Your task to perform on an android device: change text size in settings app Image 0: 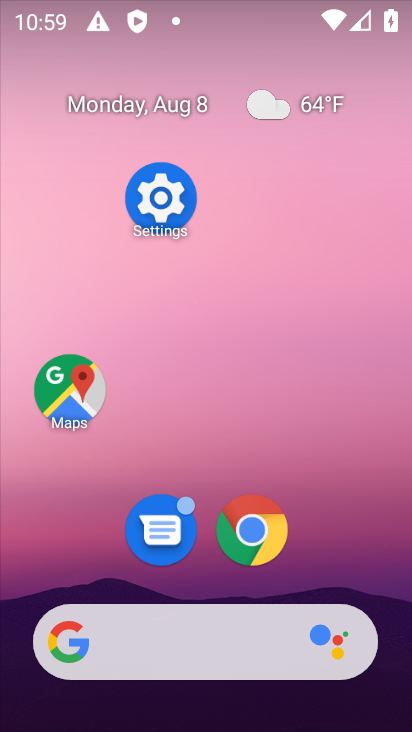
Step 0: drag from (179, 495) to (155, 341)
Your task to perform on an android device: change text size in settings app Image 1: 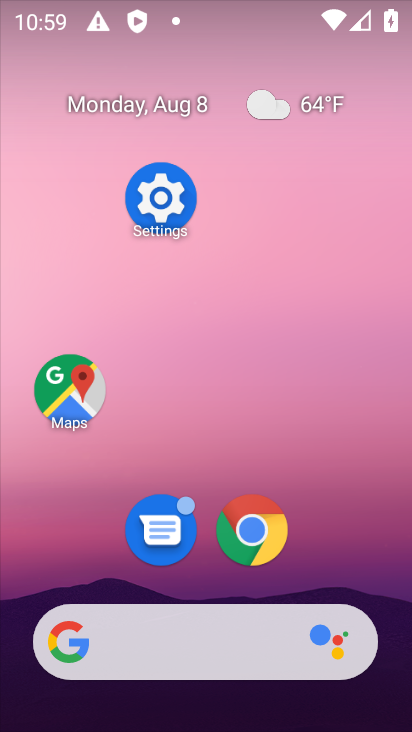
Step 1: drag from (239, 510) to (194, 261)
Your task to perform on an android device: change text size in settings app Image 2: 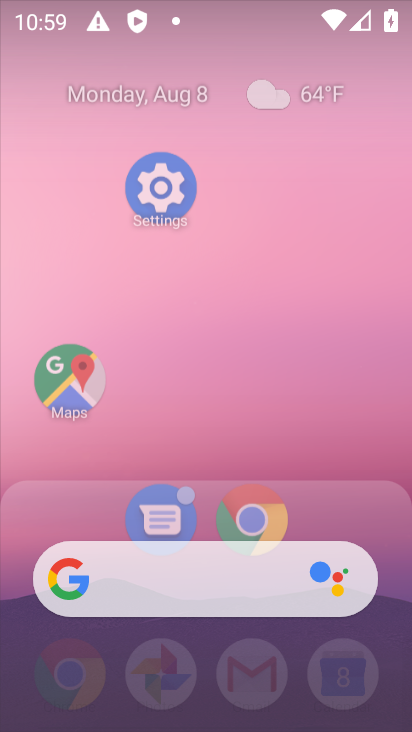
Step 2: drag from (230, 533) to (179, 144)
Your task to perform on an android device: change text size in settings app Image 3: 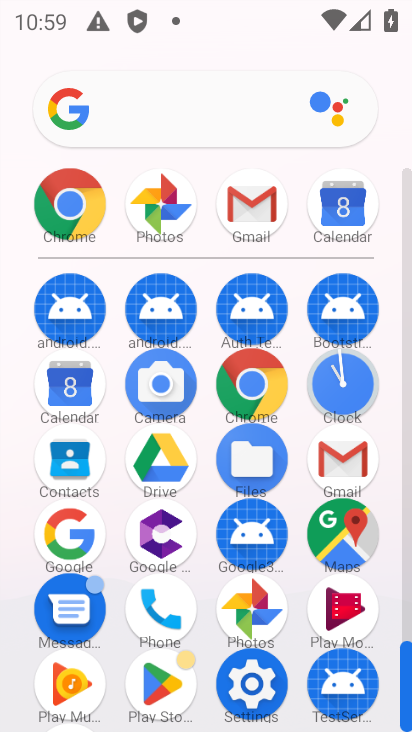
Step 3: click (258, 692)
Your task to perform on an android device: change text size in settings app Image 4: 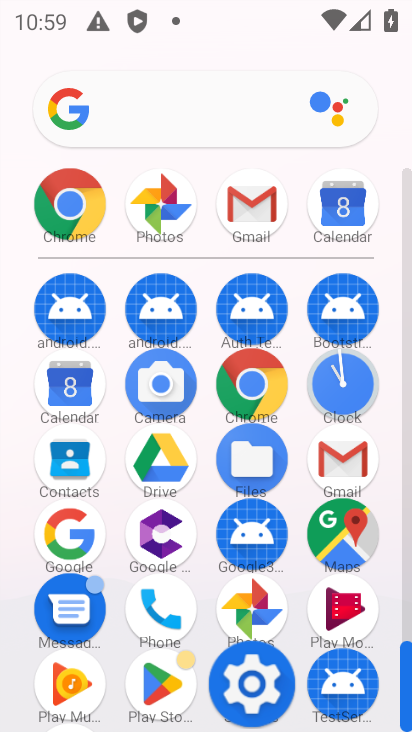
Step 4: click (258, 692)
Your task to perform on an android device: change text size in settings app Image 5: 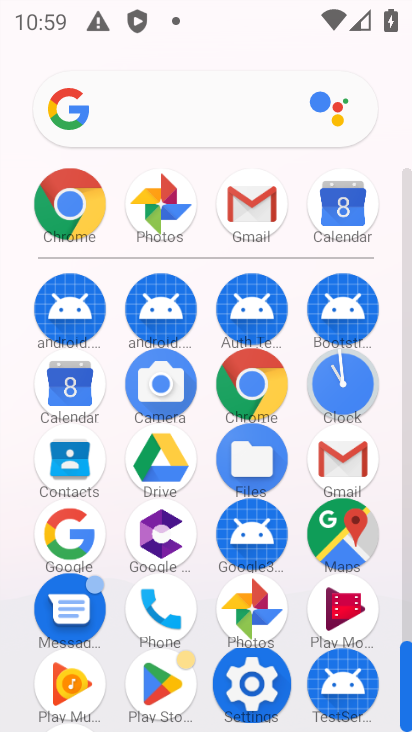
Step 5: click (260, 692)
Your task to perform on an android device: change text size in settings app Image 6: 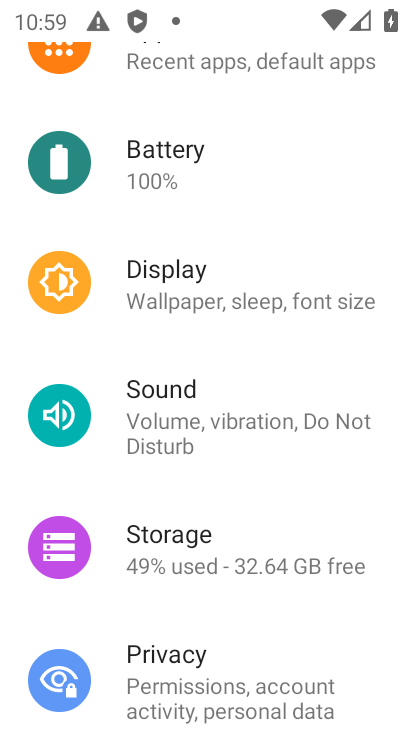
Step 6: drag from (179, 260) to (179, 503)
Your task to perform on an android device: change text size in settings app Image 7: 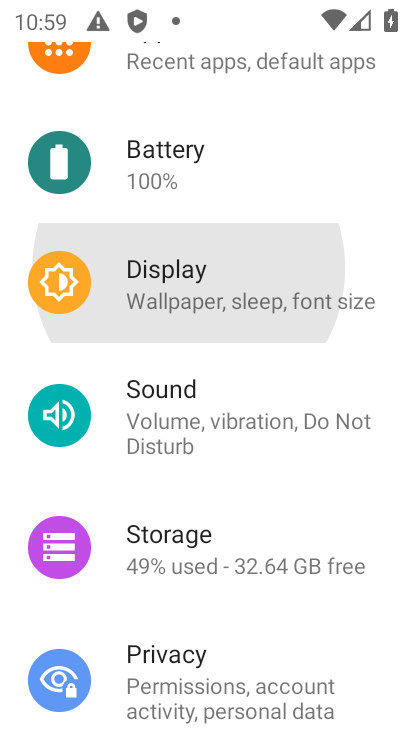
Step 7: drag from (130, 232) to (189, 516)
Your task to perform on an android device: change text size in settings app Image 8: 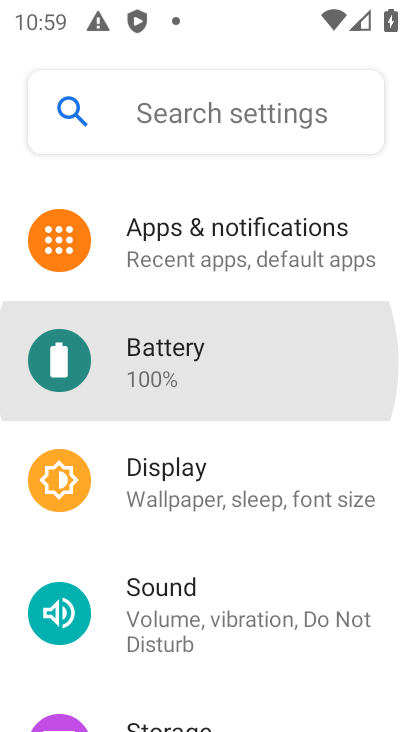
Step 8: drag from (199, 272) to (221, 524)
Your task to perform on an android device: change text size in settings app Image 9: 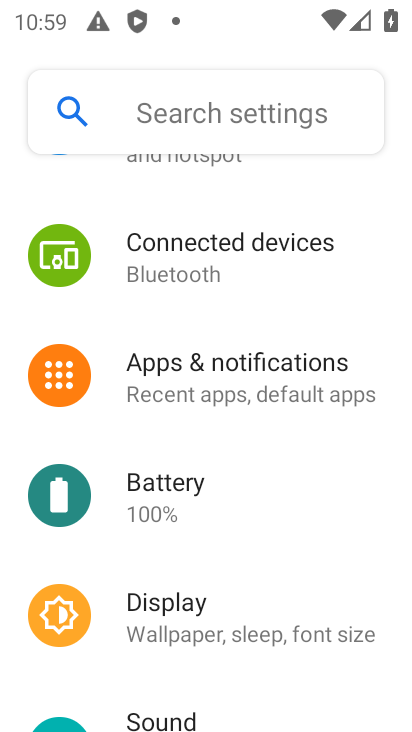
Step 9: drag from (197, 504) to (170, 325)
Your task to perform on an android device: change text size in settings app Image 10: 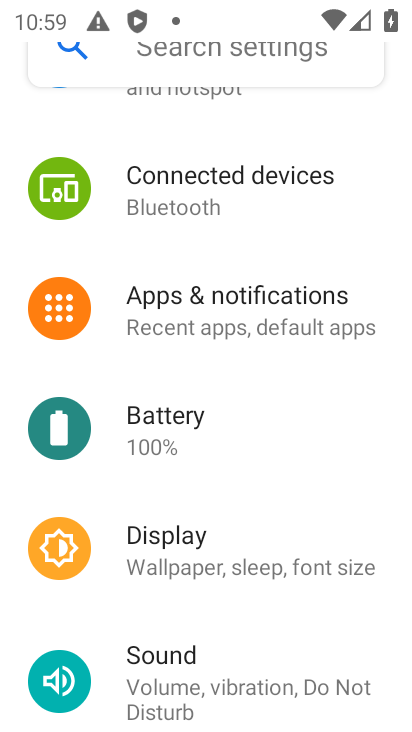
Step 10: drag from (219, 413) to (179, 259)
Your task to perform on an android device: change text size in settings app Image 11: 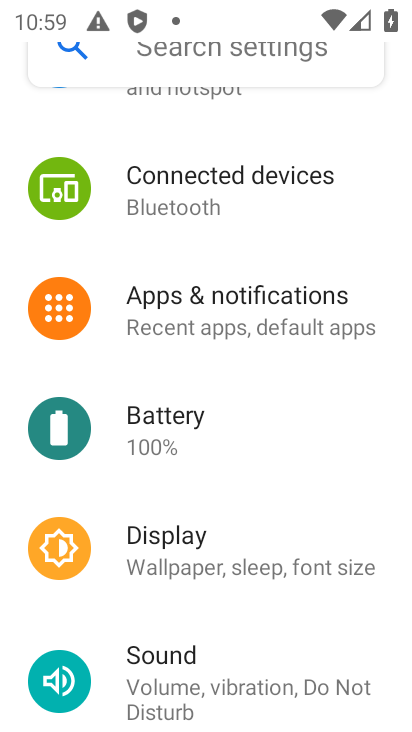
Step 11: drag from (219, 492) to (183, 189)
Your task to perform on an android device: change text size in settings app Image 12: 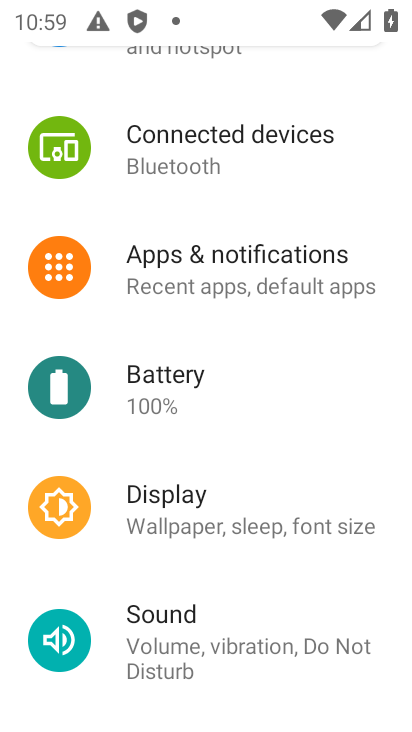
Step 12: drag from (214, 509) to (190, 201)
Your task to perform on an android device: change text size in settings app Image 13: 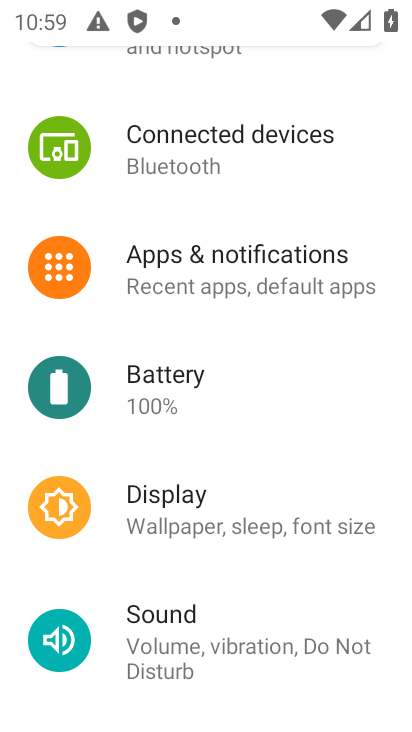
Step 13: drag from (202, 597) to (159, 235)
Your task to perform on an android device: change text size in settings app Image 14: 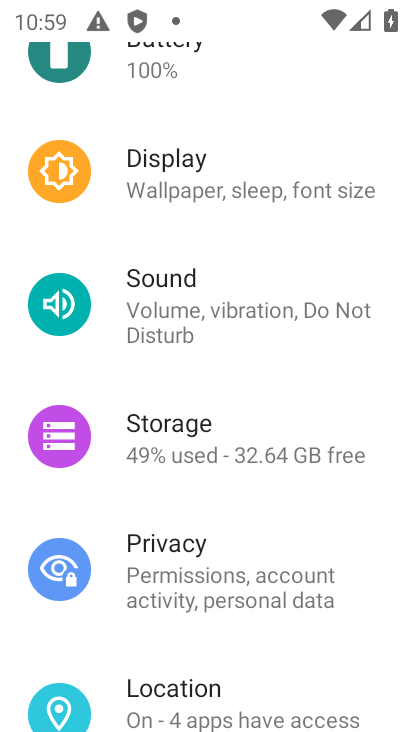
Step 14: drag from (204, 639) to (178, 224)
Your task to perform on an android device: change text size in settings app Image 15: 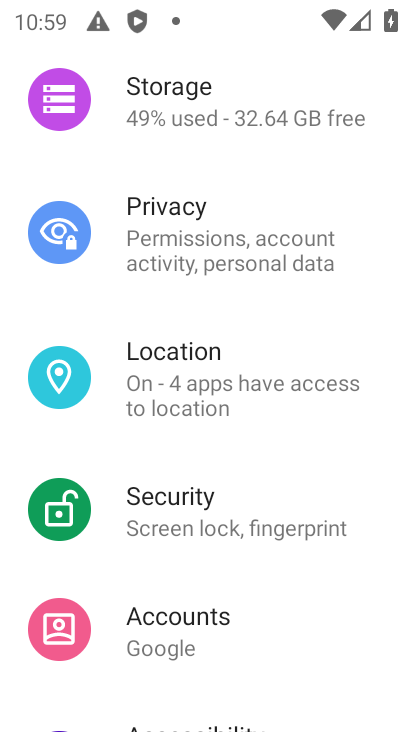
Step 15: drag from (188, 235) to (208, 425)
Your task to perform on an android device: change text size in settings app Image 16: 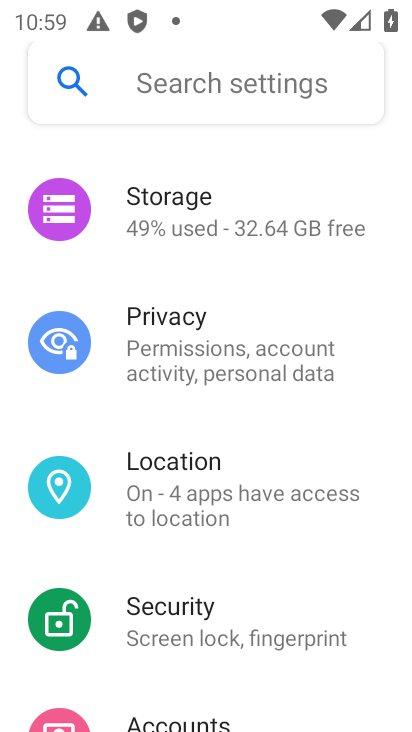
Step 16: drag from (206, 284) to (234, 538)
Your task to perform on an android device: change text size in settings app Image 17: 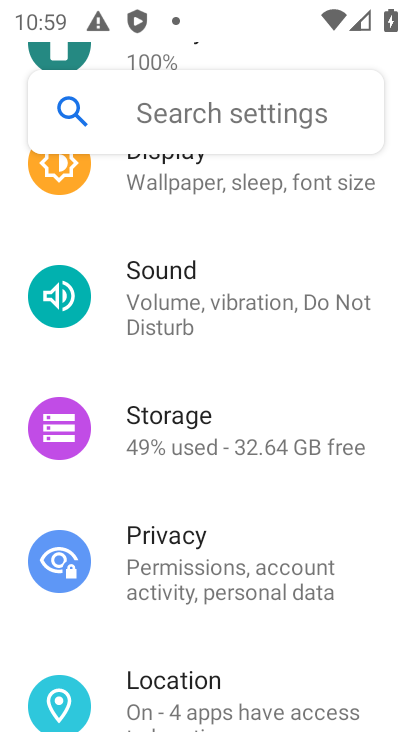
Step 17: drag from (225, 317) to (215, 517)
Your task to perform on an android device: change text size in settings app Image 18: 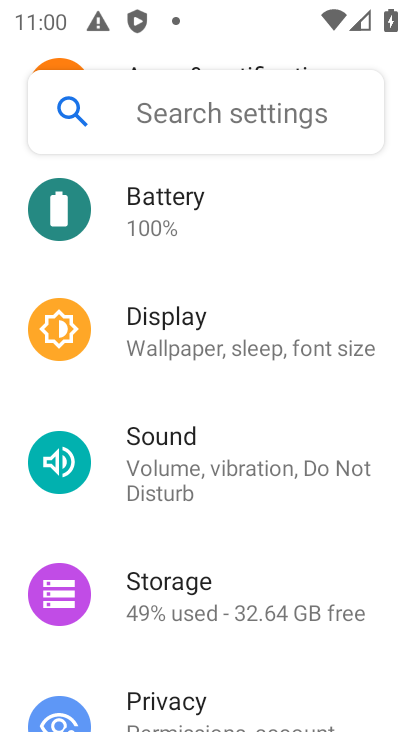
Step 18: click (169, 345)
Your task to perform on an android device: change text size in settings app Image 19: 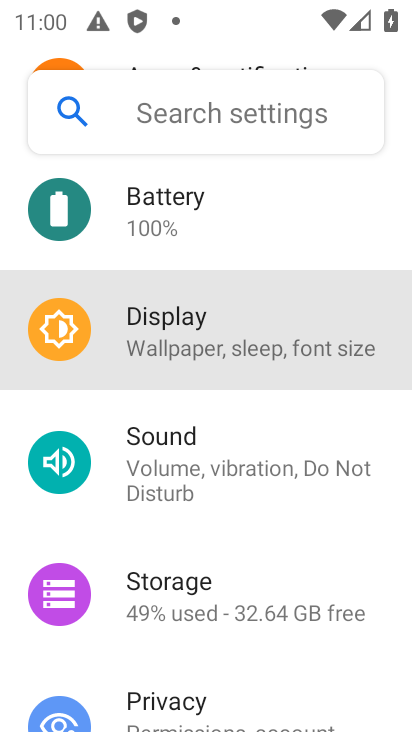
Step 19: click (169, 345)
Your task to perform on an android device: change text size in settings app Image 20: 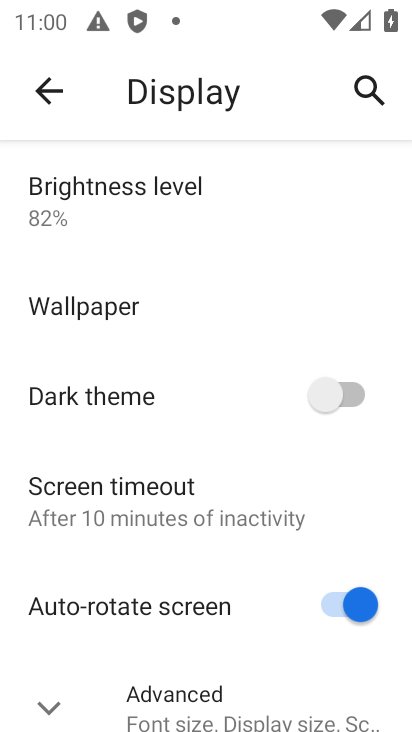
Step 20: drag from (204, 516) to (168, 175)
Your task to perform on an android device: change text size in settings app Image 21: 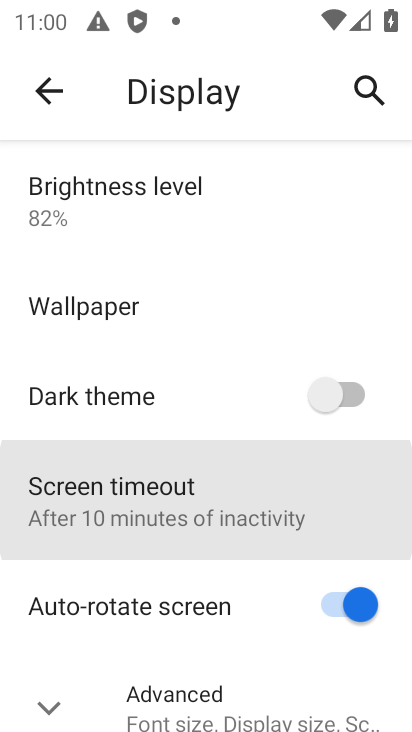
Step 21: drag from (220, 562) to (216, 230)
Your task to perform on an android device: change text size in settings app Image 22: 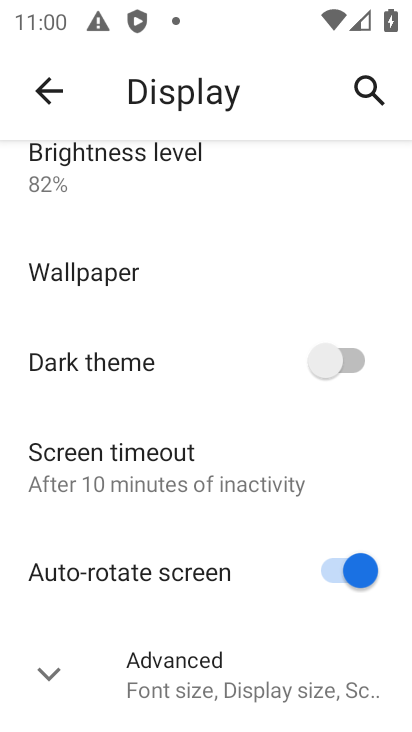
Step 22: click (182, 674)
Your task to perform on an android device: change text size in settings app Image 23: 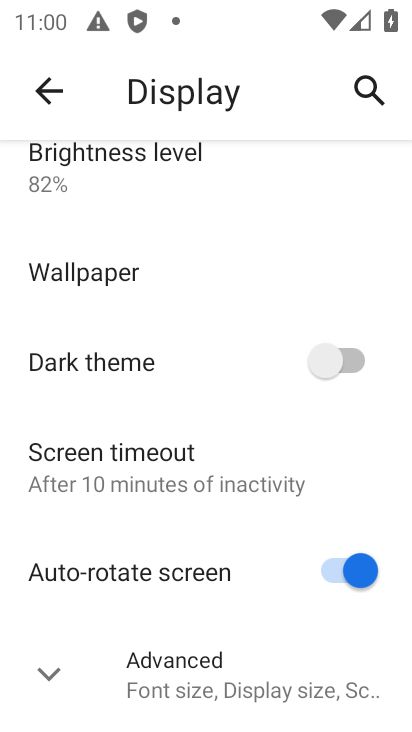
Step 23: click (182, 674)
Your task to perform on an android device: change text size in settings app Image 24: 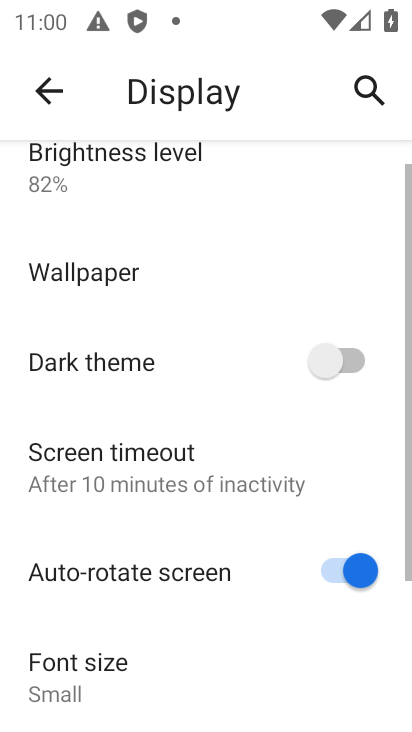
Step 24: drag from (153, 392) to (139, 291)
Your task to perform on an android device: change text size in settings app Image 25: 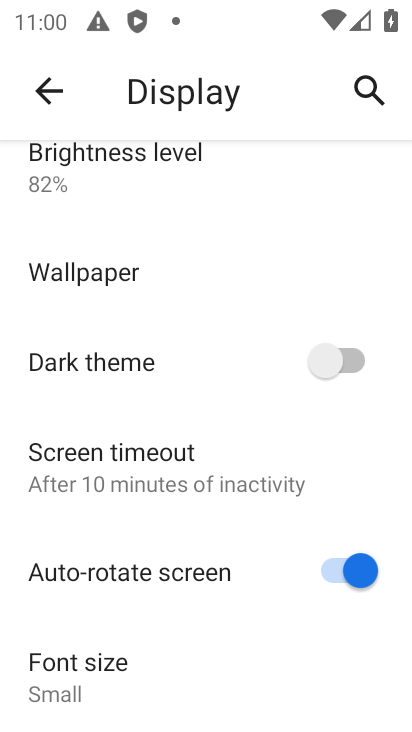
Step 25: drag from (190, 427) to (181, 297)
Your task to perform on an android device: change text size in settings app Image 26: 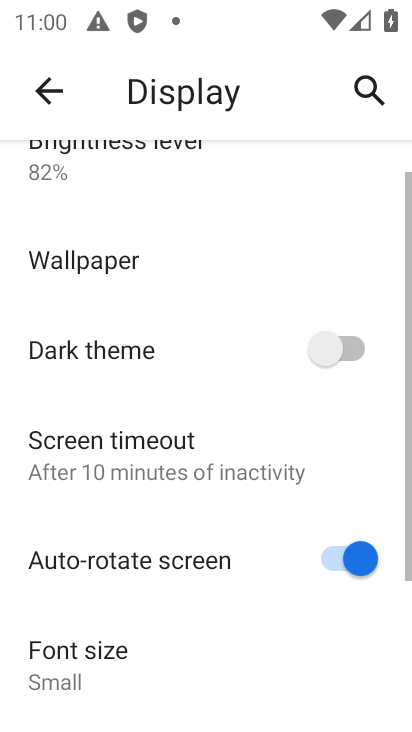
Step 26: drag from (179, 508) to (151, 233)
Your task to perform on an android device: change text size in settings app Image 27: 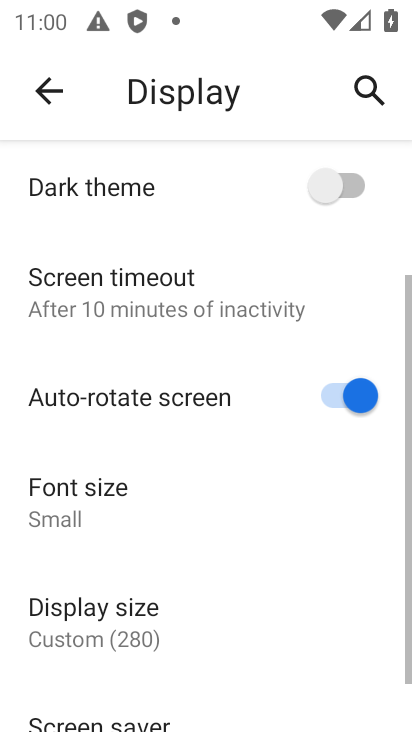
Step 27: drag from (169, 525) to (169, 140)
Your task to perform on an android device: change text size in settings app Image 28: 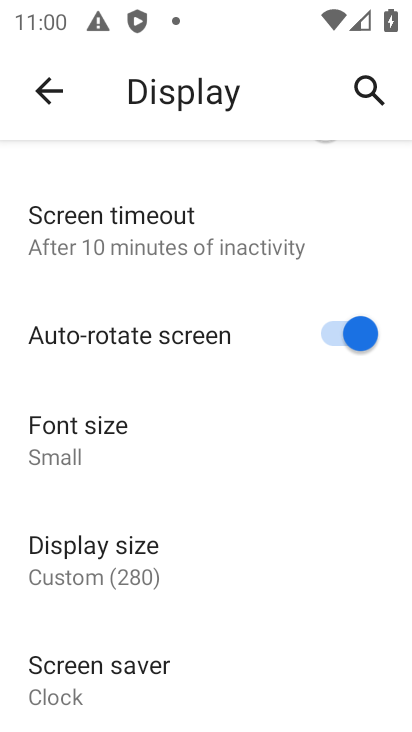
Step 28: drag from (211, 546) to (196, 306)
Your task to perform on an android device: change text size in settings app Image 29: 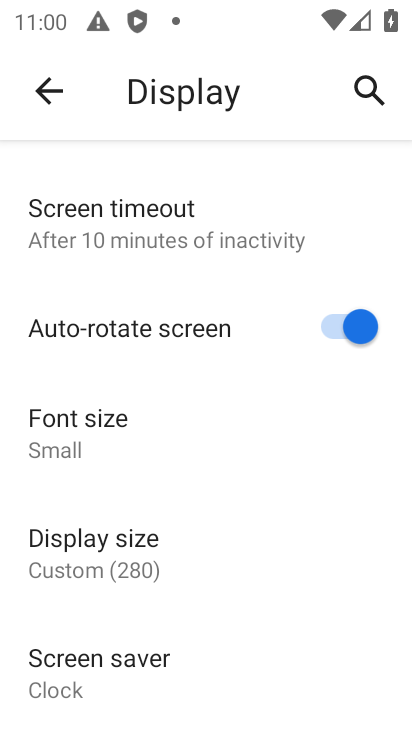
Step 29: drag from (192, 279) to (214, 595)
Your task to perform on an android device: change text size in settings app Image 30: 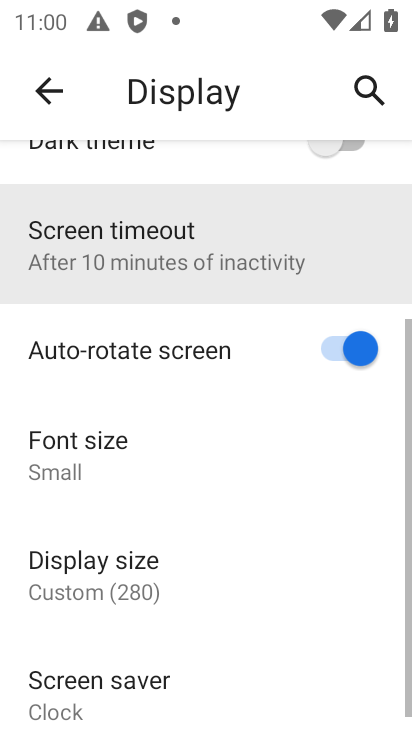
Step 30: drag from (155, 273) to (198, 564)
Your task to perform on an android device: change text size in settings app Image 31: 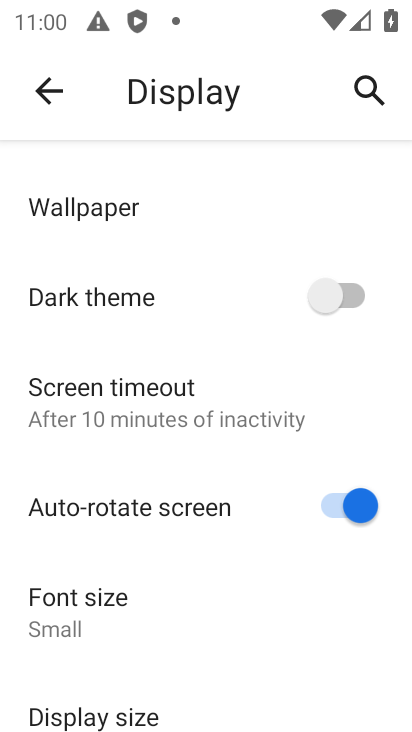
Step 31: click (57, 80)
Your task to perform on an android device: change text size in settings app Image 32: 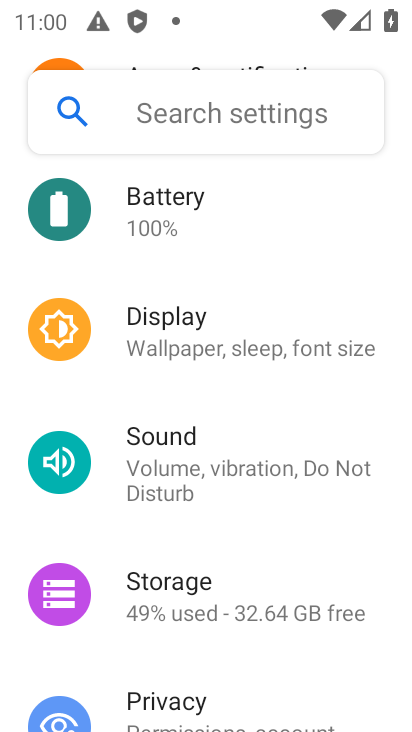
Step 32: click (190, 341)
Your task to perform on an android device: change text size in settings app Image 33: 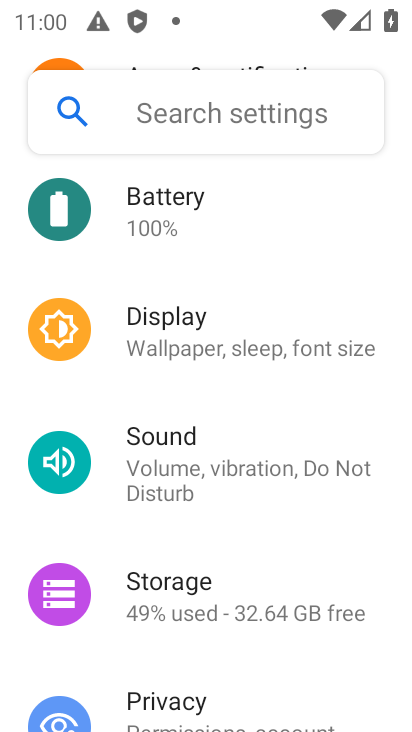
Step 33: click (190, 341)
Your task to perform on an android device: change text size in settings app Image 34: 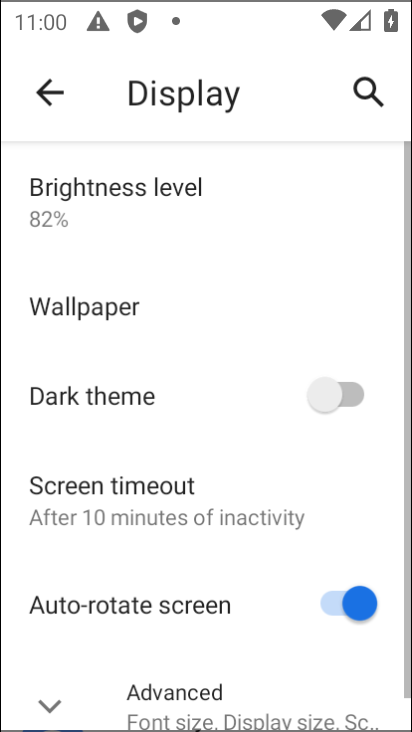
Step 34: click (191, 340)
Your task to perform on an android device: change text size in settings app Image 35: 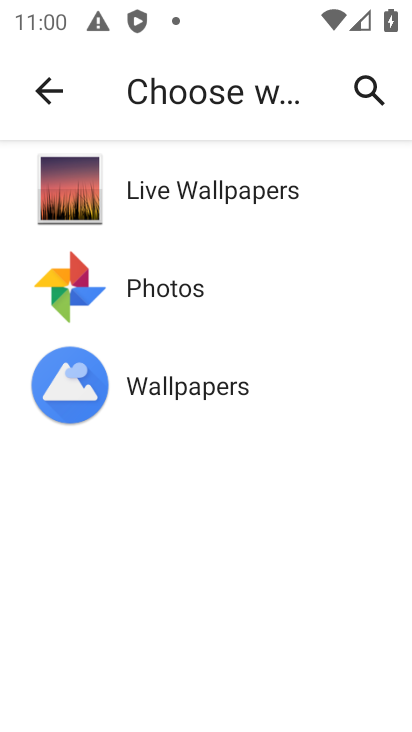
Step 35: drag from (139, 367) to (125, 268)
Your task to perform on an android device: change text size in settings app Image 36: 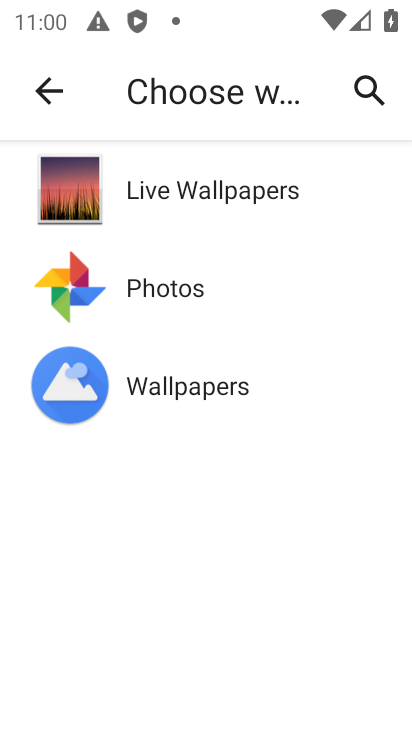
Step 36: click (144, 213)
Your task to perform on an android device: change text size in settings app Image 37: 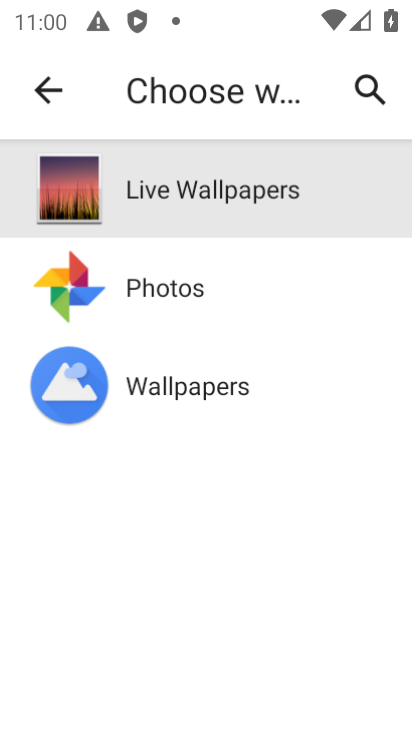
Step 37: click (53, 85)
Your task to perform on an android device: change text size in settings app Image 38: 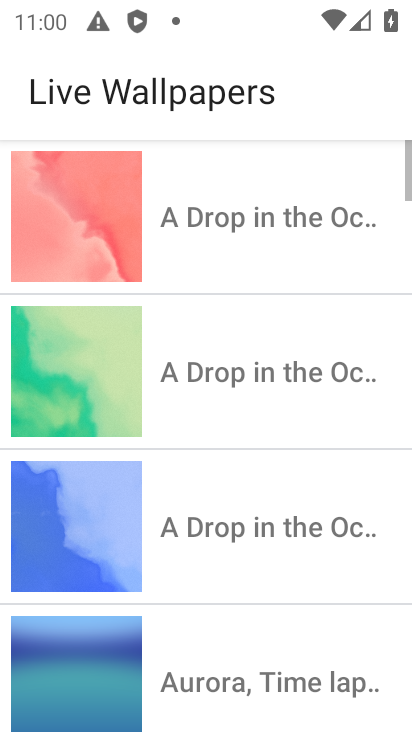
Step 38: press back button
Your task to perform on an android device: change text size in settings app Image 39: 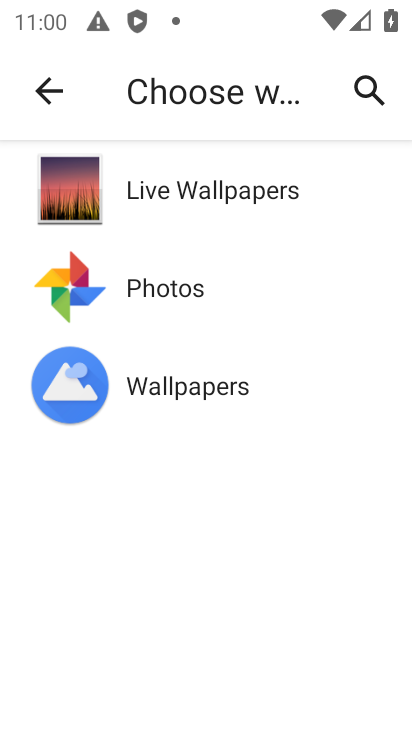
Step 39: click (39, 93)
Your task to perform on an android device: change text size in settings app Image 40: 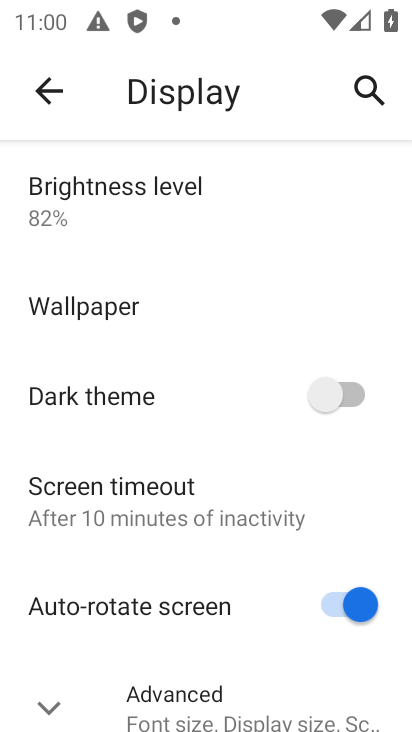
Step 40: click (188, 697)
Your task to perform on an android device: change text size in settings app Image 41: 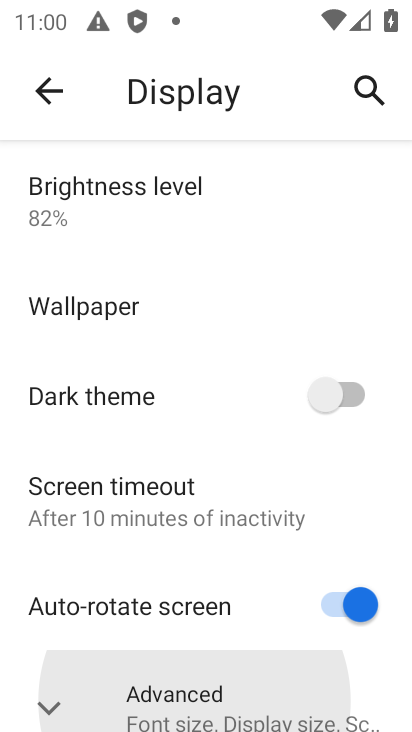
Step 41: click (191, 703)
Your task to perform on an android device: change text size in settings app Image 42: 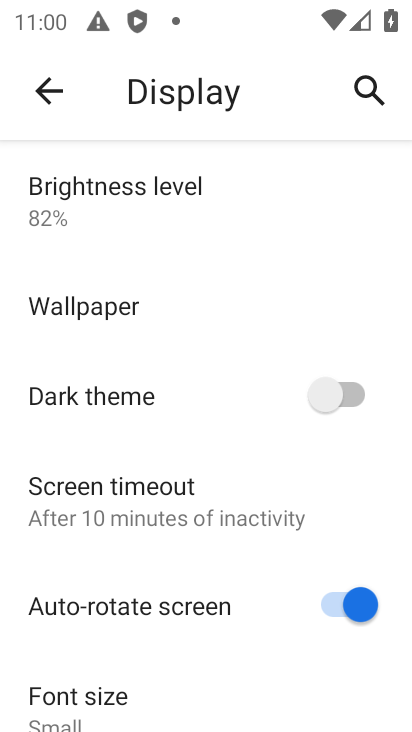
Step 42: click (69, 704)
Your task to perform on an android device: change text size in settings app Image 43: 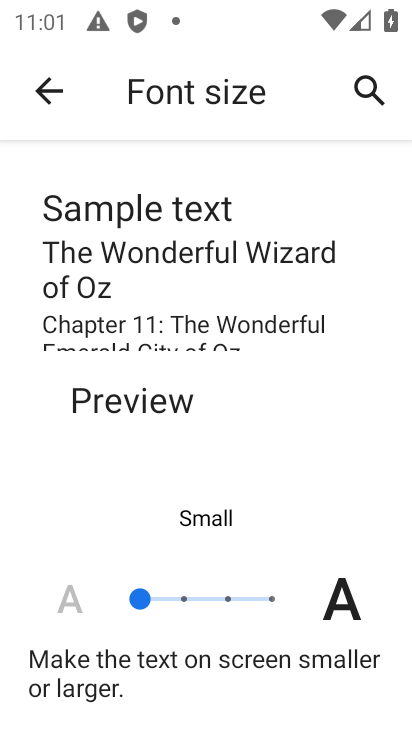
Step 43: click (180, 597)
Your task to perform on an android device: change text size in settings app Image 44: 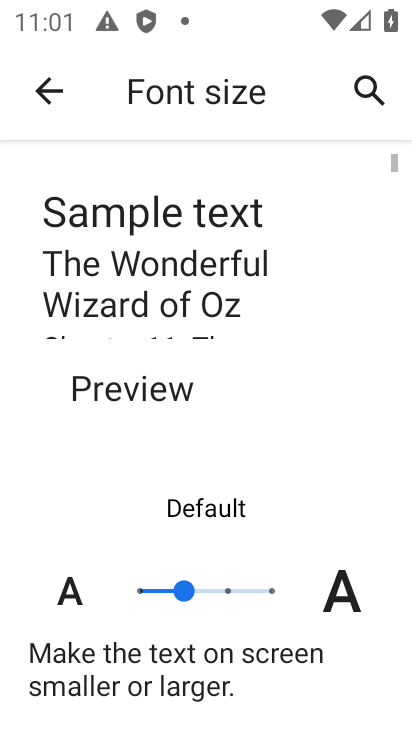
Step 44: click (128, 595)
Your task to perform on an android device: change text size in settings app Image 45: 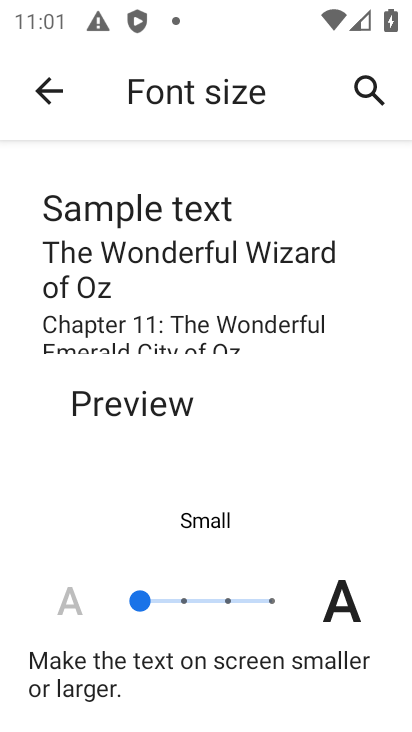
Step 45: task complete